Your task to perform on an android device: open app "Etsy: Buy & Sell Unique Items" (install if not already installed) Image 0: 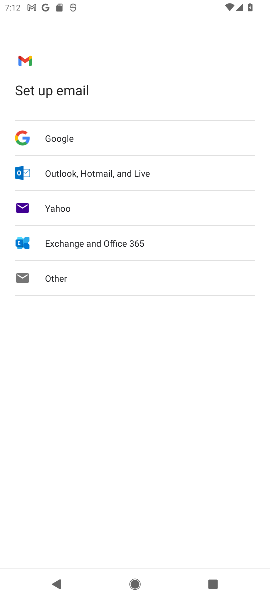
Step 0: press back button
Your task to perform on an android device: open app "Etsy: Buy & Sell Unique Items" (install if not already installed) Image 1: 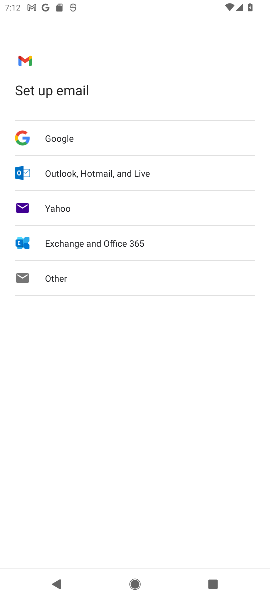
Step 1: press back button
Your task to perform on an android device: open app "Etsy: Buy & Sell Unique Items" (install if not already installed) Image 2: 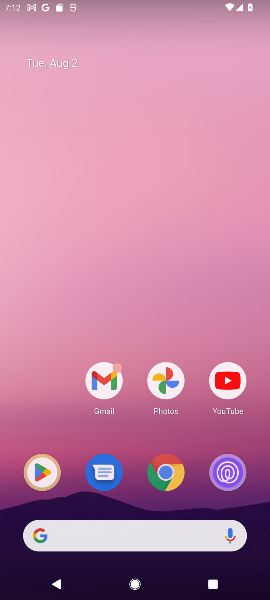
Step 2: press back button
Your task to perform on an android device: open app "Etsy: Buy & Sell Unique Items" (install if not already installed) Image 3: 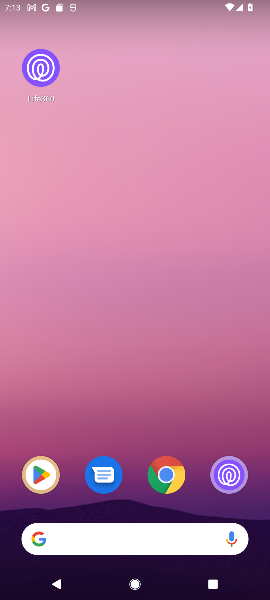
Step 3: drag from (146, 483) to (149, 99)
Your task to perform on an android device: open app "Etsy: Buy & Sell Unique Items" (install if not already installed) Image 4: 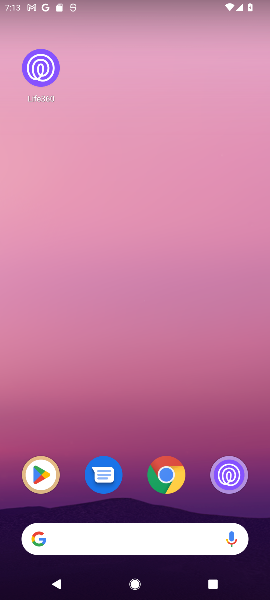
Step 4: drag from (130, 462) to (131, 122)
Your task to perform on an android device: open app "Etsy: Buy & Sell Unique Items" (install if not already installed) Image 5: 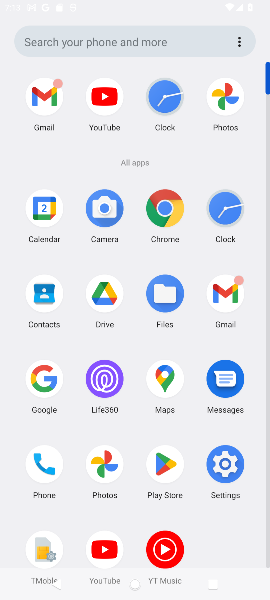
Step 5: drag from (146, 442) to (115, 101)
Your task to perform on an android device: open app "Etsy: Buy & Sell Unique Items" (install if not already installed) Image 6: 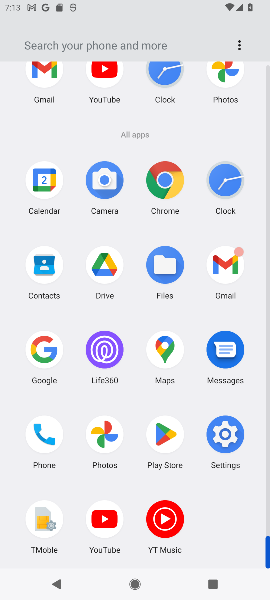
Step 6: click (165, 433)
Your task to perform on an android device: open app "Etsy: Buy & Sell Unique Items" (install if not already installed) Image 7: 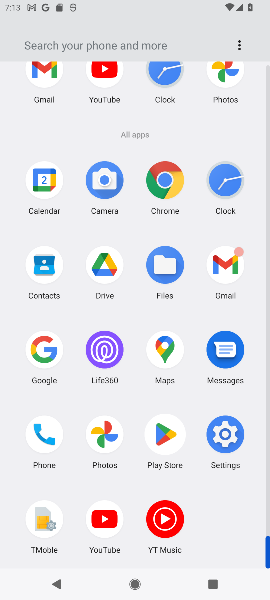
Step 7: click (164, 434)
Your task to perform on an android device: open app "Etsy: Buy & Sell Unique Items" (install if not already installed) Image 8: 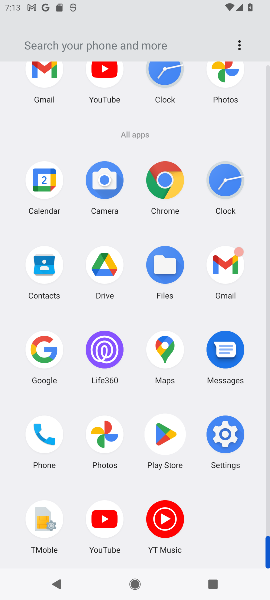
Step 8: click (164, 434)
Your task to perform on an android device: open app "Etsy: Buy & Sell Unique Items" (install if not already installed) Image 9: 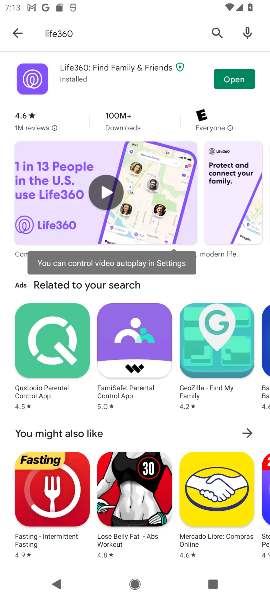
Step 9: click (164, 434)
Your task to perform on an android device: open app "Etsy: Buy & Sell Unique Items" (install if not already installed) Image 10: 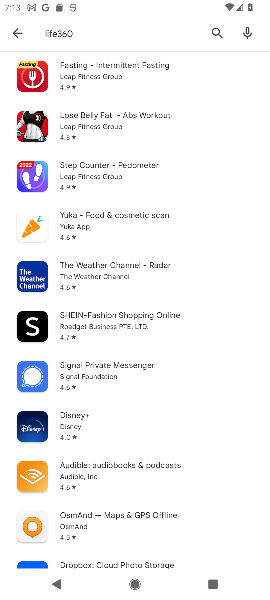
Step 10: click (23, 31)
Your task to perform on an android device: open app "Etsy: Buy & Sell Unique Items" (install if not already installed) Image 11: 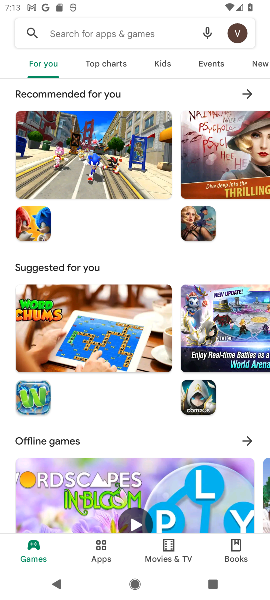
Step 11: click (98, 30)
Your task to perform on an android device: open app "Etsy: Buy & Sell Unique Items" (install if not already installed) Image 12: 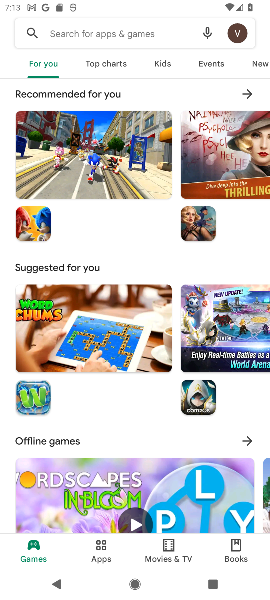
Step 12: click (95, 32)
Your task to perform on an android device: open app "Etsy: Buy & Sell Unique Items" (install if not already installed) Image 13: 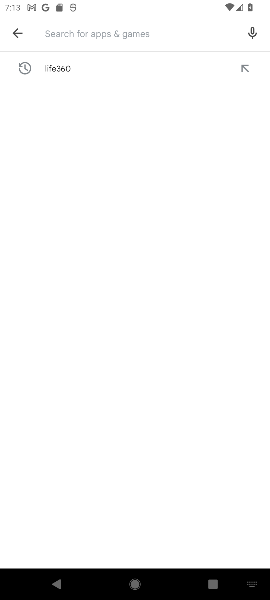
Step 13: click (97, 30)
Your task to perform on an android device: open app "Etsy: Buy & Sell Unique Items" (install if not already installed) Image 14: 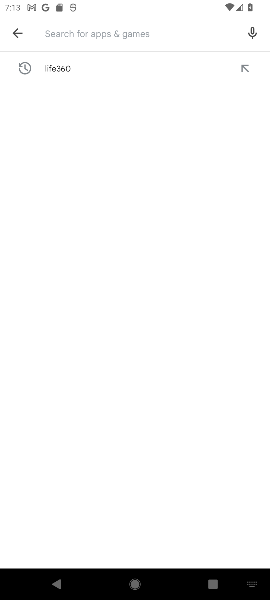
Step 14: click (98, 32)
Your task to perform on an android device: open app "Etsy: Buy & Sell Unique Items" (install if not already installed) Image 15: 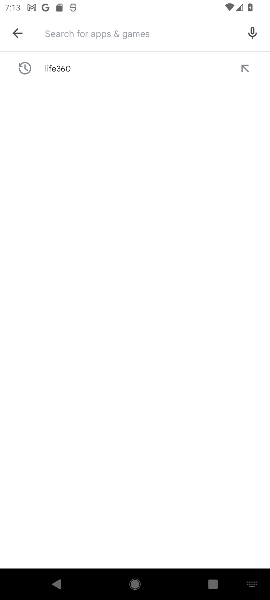
Step 15: type "etsy"
Your task to perform on an android device: open app "Etsy: Buy & Sell Unique Items" (install if not already installed) Image 16: 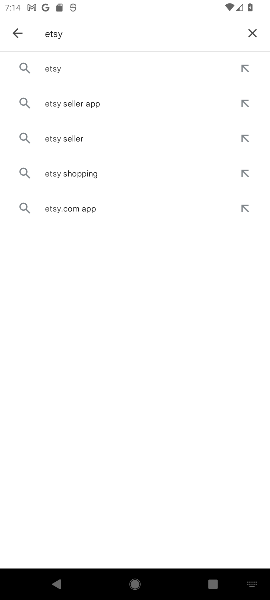
Step 16: click (55, 66)
Your task to perform on an android device: open app "Etsy: Buy & Sell Unique Items" (install if not already installed) Image 17: 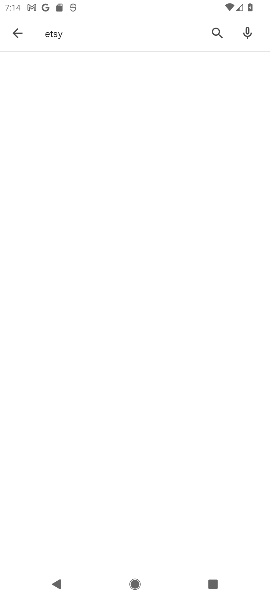
Step 17: click (56, 65)
Your task to perform on an android device: open app "Etsy: Buy & Sell Unique Items" (install if not already installed) Image 18: 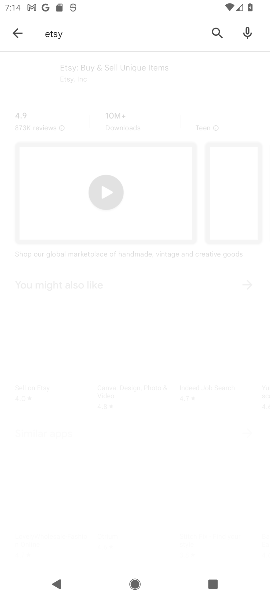
Step 18: click (58, 67)
Your task to perform on an android device: open app "Etsy: Buy & Sell Unique Items" (install if not already installed) Image 19: 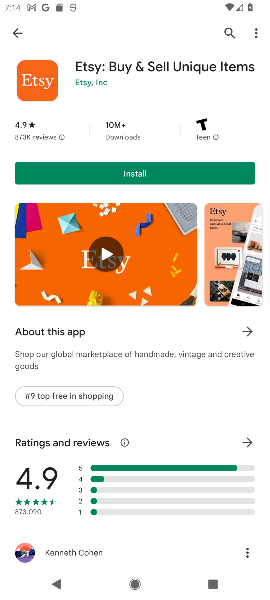
Step 19: click (141, 177)
Your task to perform on an android device: open app "Etsy: Buy & Sell Unique Items" (install if not already installed) Image 20: 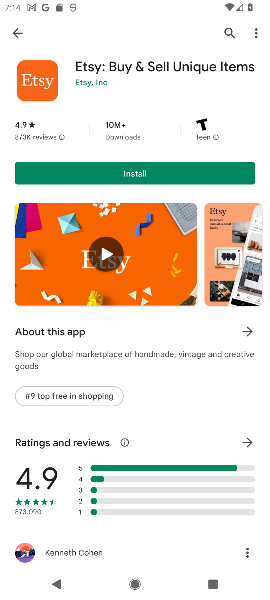
Step 20: click (143, 177)
Your task to perform on an android device: open app "Etsy: Buy & Sell Unique Items" (install if not already installed) Image 21: 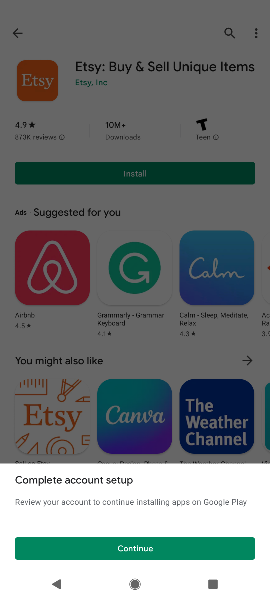
Step 21: click (140, 174)
Your task to perform on an android device: open app "Etsy: Buy & Sell Unique Items" (install if not already installed) Image 22: 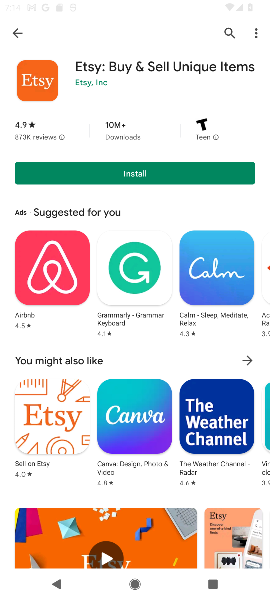
Step 22: click (139, 177)
Your task to perform on an android device: open app "Etsy: Buy & Sell Unique Items" (install if not already installed) Image 23: 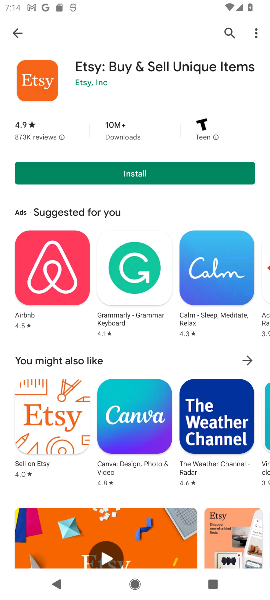
Step 23: click (139, 177)
Your task to perform on an android device: open app "Etsy: Buy & Sell Unique Items" (install if not already installed) Image 24: 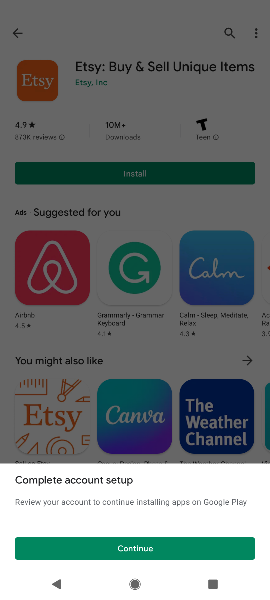
Step 24: click (150, 544)
Your task to perform on an android device: open app "Etsy: Buy & Sell Unique Items" (install if not already installed) Image 25: 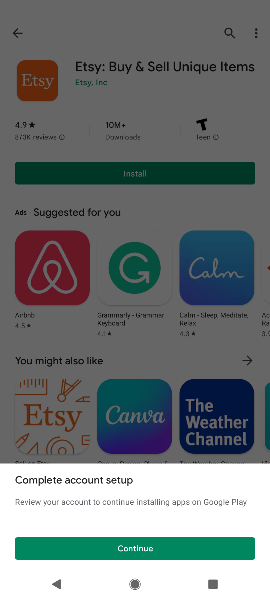
Step 25: click (150, 544)
Your task to perform on an android device: open app "Etsy: Buy & Sell Unique Items" (install if not already installed) Image 26: 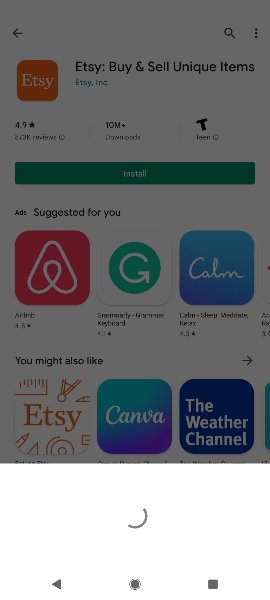
Step 26: click (158, 548)
Your task to perform on an android device: open app "Etsy: Buy & Sell Unique Items" (install if not already installed) Image 27: 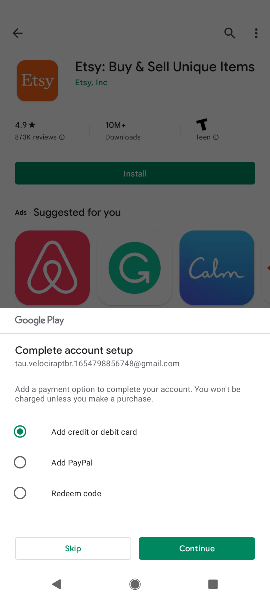
Step 27: click (92, 548)
Your task to perform on an android device: open app "Etsy: Buy & Sell Unique Items" (install if not already installed) Image 28: 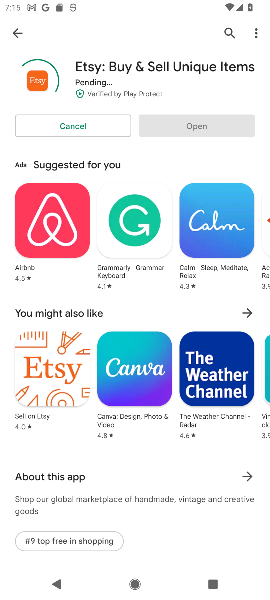
Step 28: click (140, 173)
Your task to perform on an android device: open app "Etsy: Buy & Sell Unique Items" (install if not already installed) Image 29: 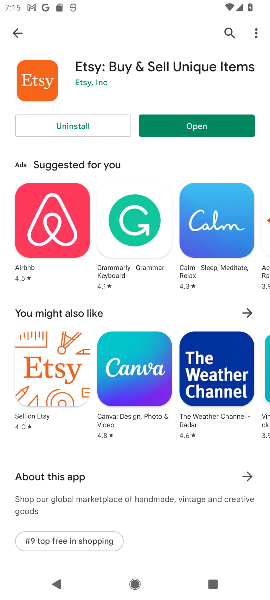
Step 29: click (207, 124)
Your task to perform on an android device: open app "Etsy: Buy & Sell Unique Items" (install if not already installed) Image 30: 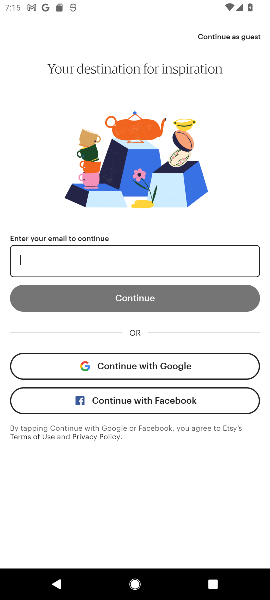
Step 30: task complete